Your task to perform on an android device: Search for pizza restaurants on Maps Image 0: 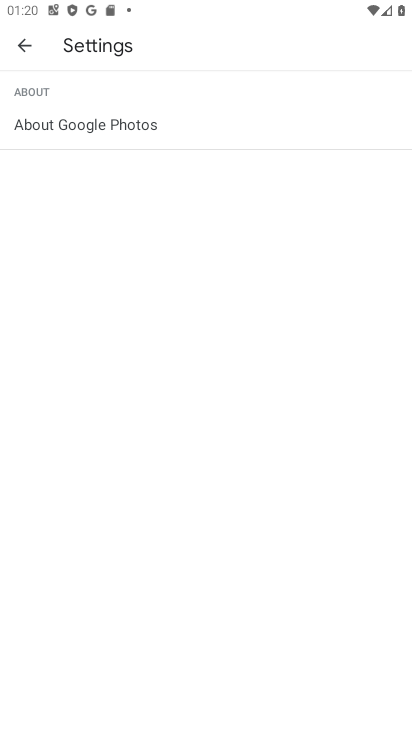
Step 0: press home button
Your task to perform on an android device: Search for pizza restaurants on Maps Image 1: 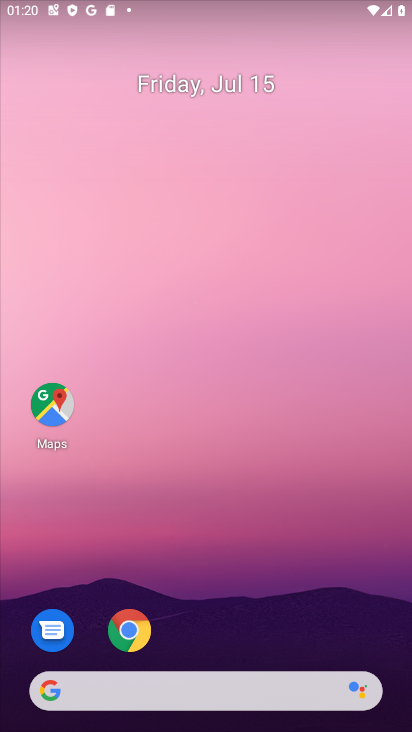
Step 1: drag from (294, 644) to (248, 103)
Your task to perform on an android device: Search for pizza restaurants on Maps Image 2: 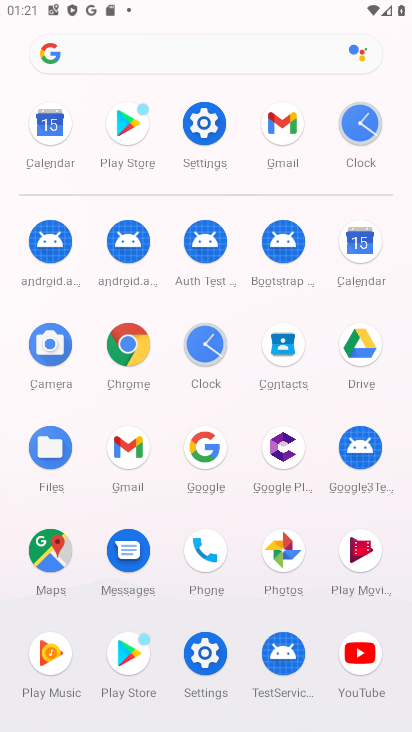
Step 2: click (54, 566)
Your task to perform on an android device: Search for pizza restaurants on Maps Image 3: 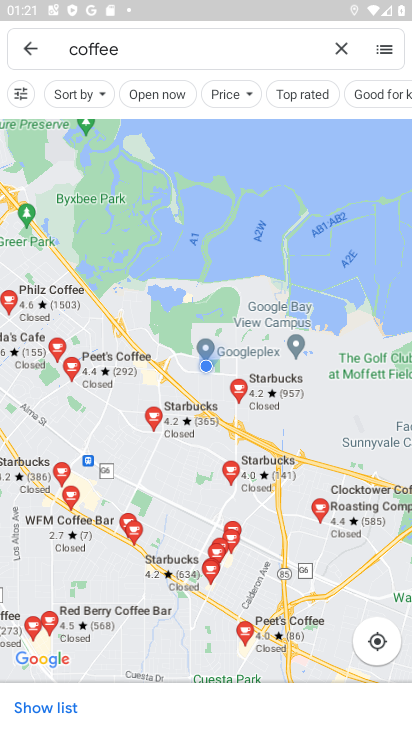
Step 3: click (338, 64)
Your task to perform on an android device: Search for pizza restaurants on Maps Image 4: 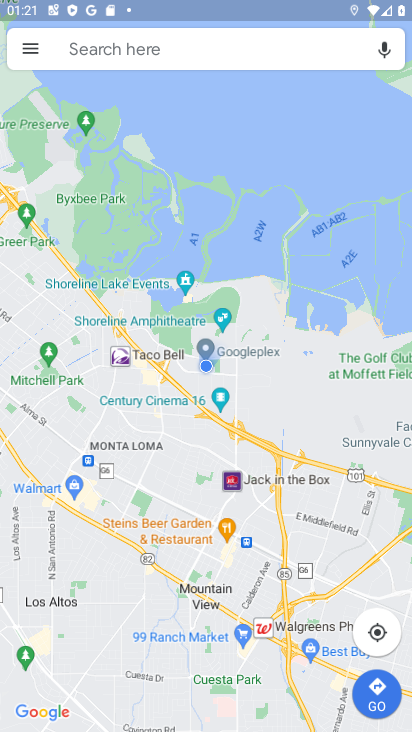
Step 4: click (240, 59)
Your task to perform on an android device: Search for pizza restaurants on Maps Image 5: 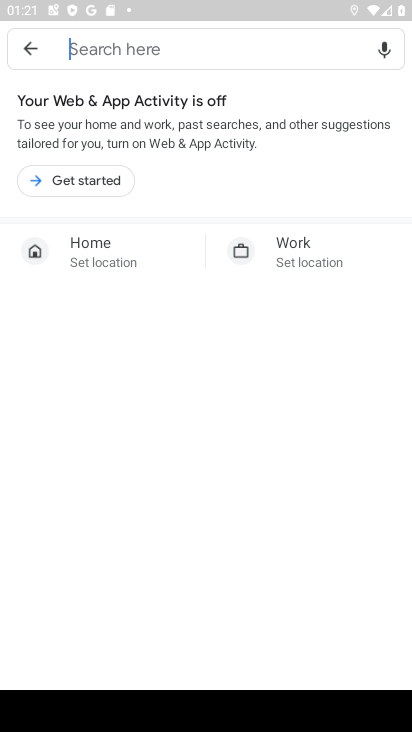
Step 5: type "pizza"
Your task to perform on an android device: Search for pizza restaurants on Maps Image 6: 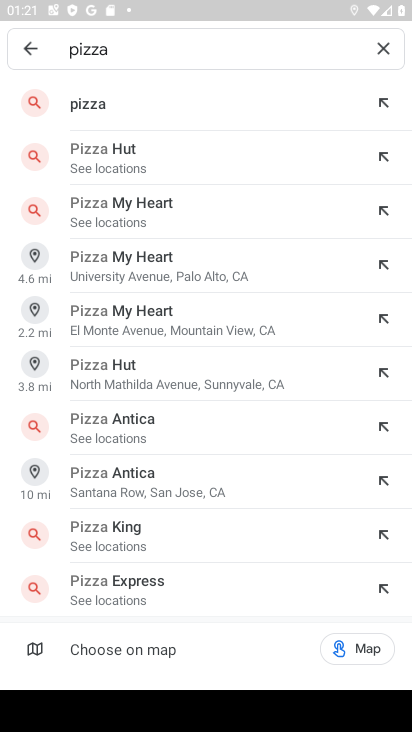
Step 6: click (152, 113)
Your task to perform on an android device: Search for pizza restaurants on Maps Image 7: 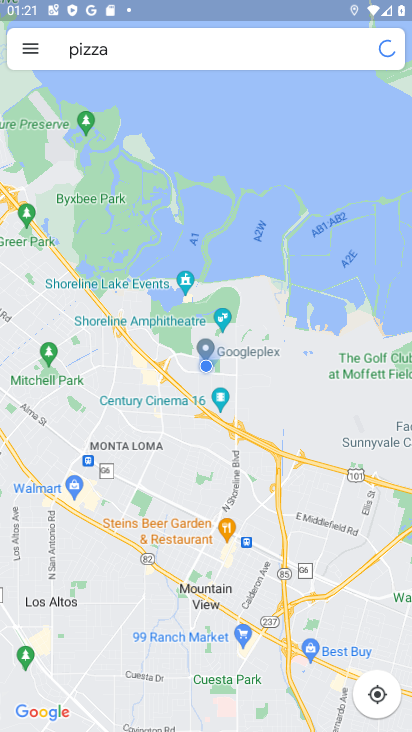
Step 7: task complete